Your task to perform on an android device: open chrome and create a bookmark for the current page Image 0: 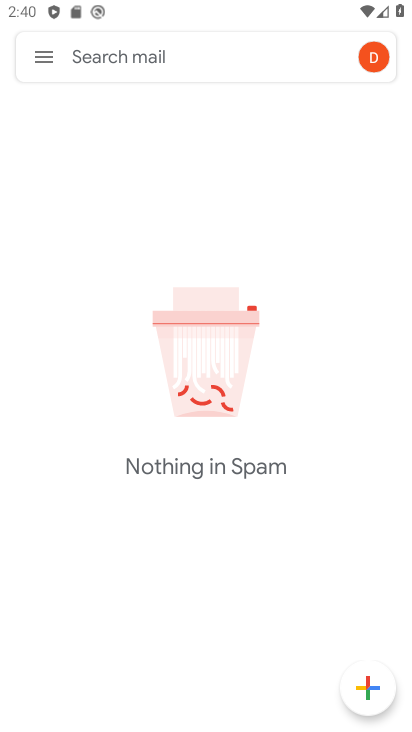
Step 0: press home button
Your task to perform on an android device: open chrome and create a bookmark for the current page Image 1: 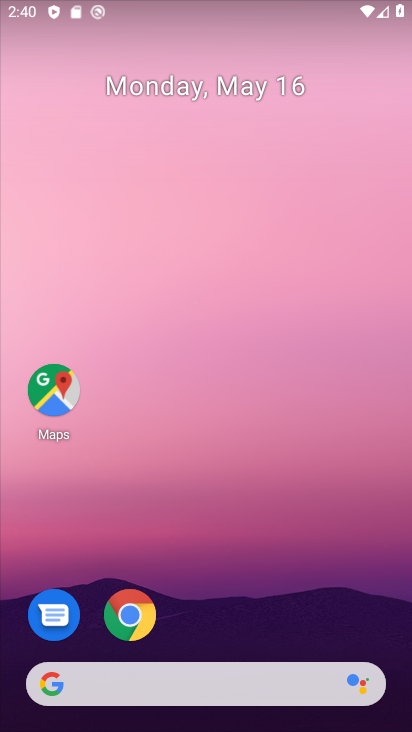
Step 1: click (136, 615)
Your task to perform on an android device: open chrome and create a bookmark for the current page Image 2: 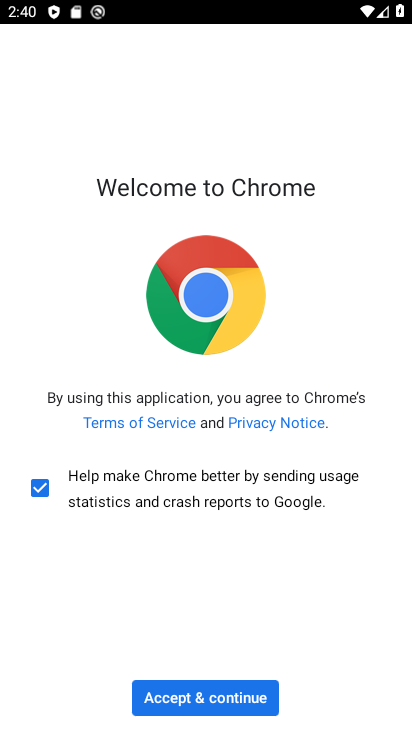
Step 2: click (196, 693)
Your task to perform on an android device: open chrome and create a bookmark for the current page Image 3: 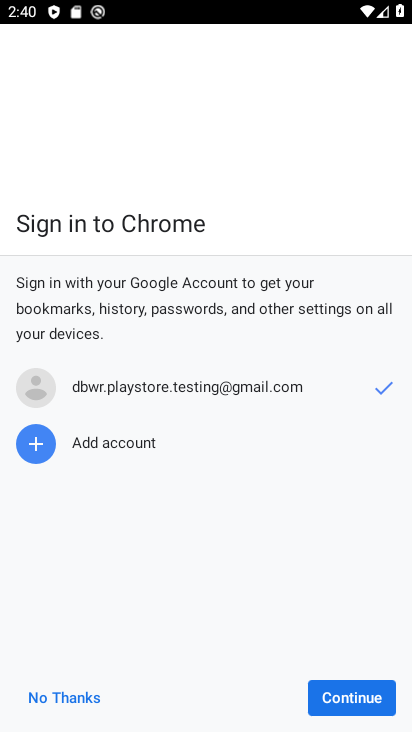
Step 3: click (78, 694)
Your task to perform on an android device: open chrome and create a bookmark for the current page Image 4: 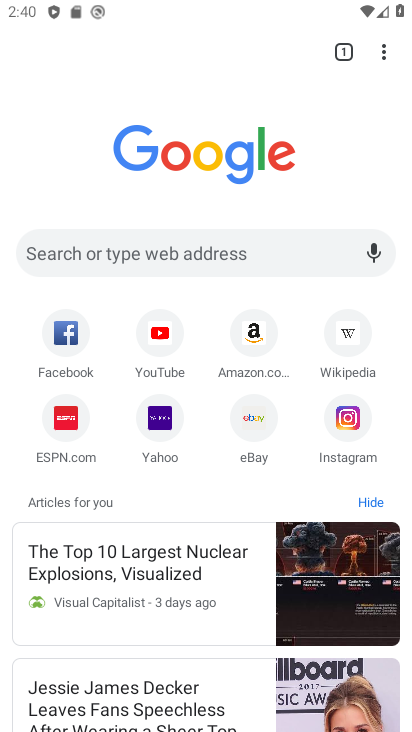
Step 4: click (389, 50)
Your task to perform on an android device: open chrome and create a bookmark for the current page Image 5: 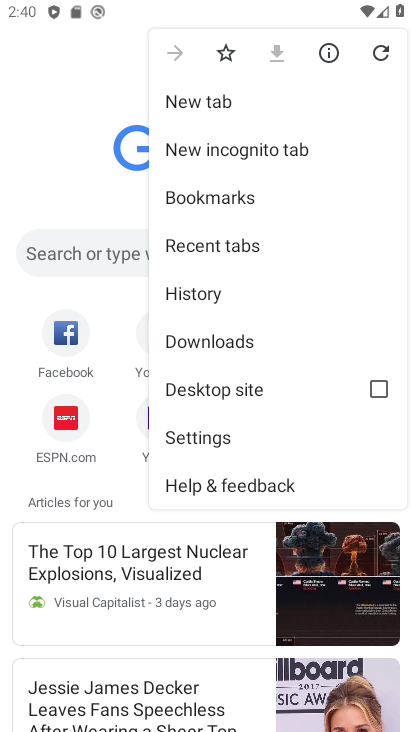
Step 5: click (231, 53)
Your task to perform on an android device: open chrome and create a bookmark for the current page Image 6: 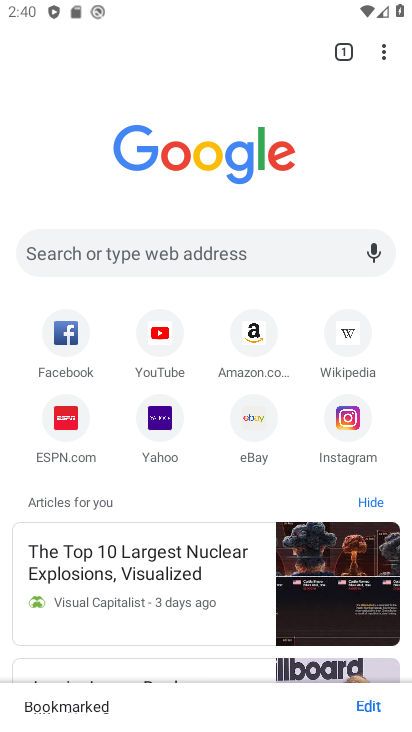
Step 6: task complete